Your task to perform on an android device: Open calendar and show me the first week of next month Image 0: 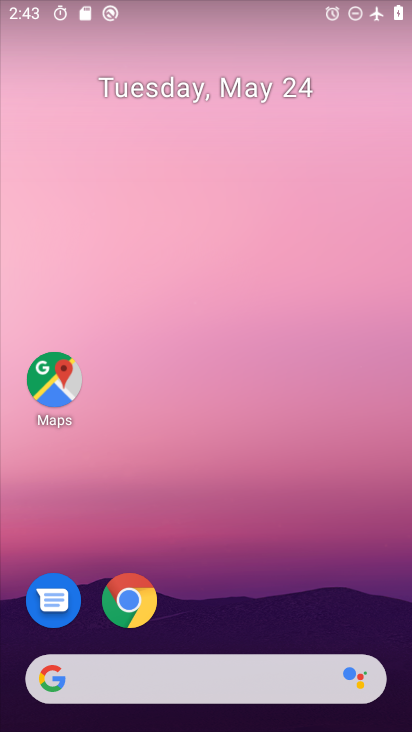
Step 0: drag from (240, 590) to (273, 117)
Your task to perform on an android device: Open calendar and show me the first week of next month Image 1: 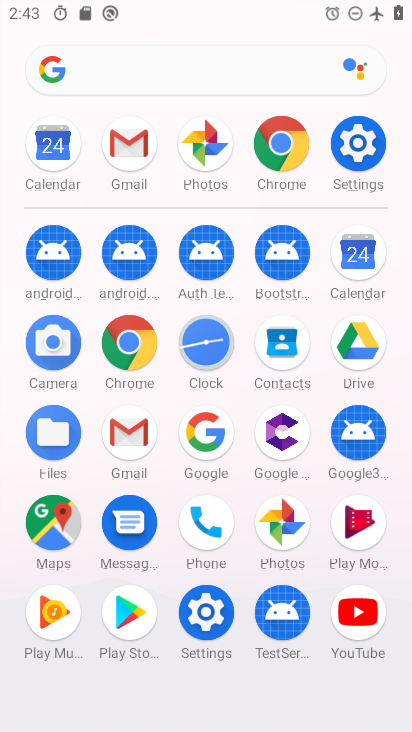
Step 1: click (350, 252)
Your task to perform on an android device: Open calendar and show me the first week of next month Image 2: 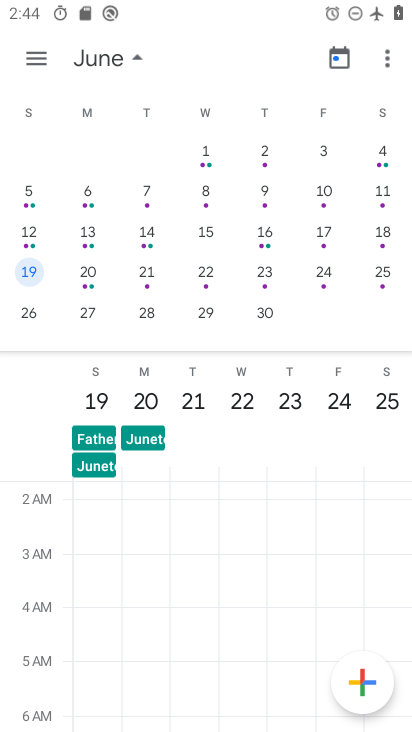
Step 2: click (118, 59)
Your task to perform on an android device: Open calendar and show me the first week of next month Image 3: 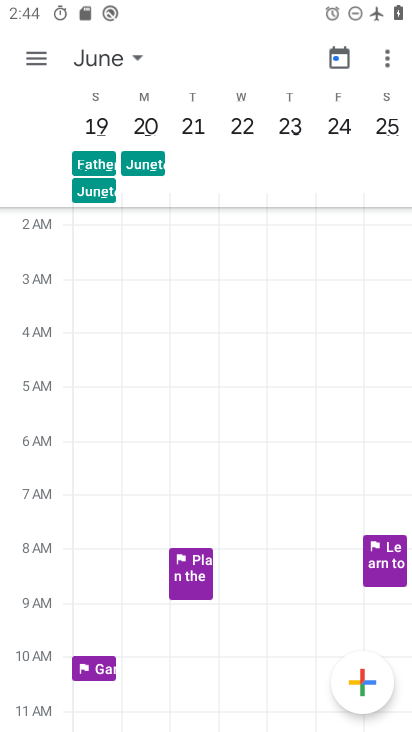
Step 3: click (90, 50)
Your task to perform on an android device: Open calendar and show me the first week of next month Image 4: 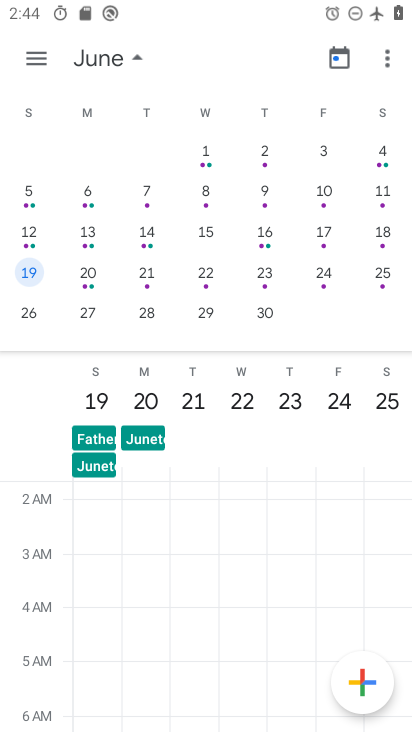
Step 4: drag from (67, 260) to (121, 281)
Your task to perform on an android device: Open calendar and show me the first week of next month Image 5: 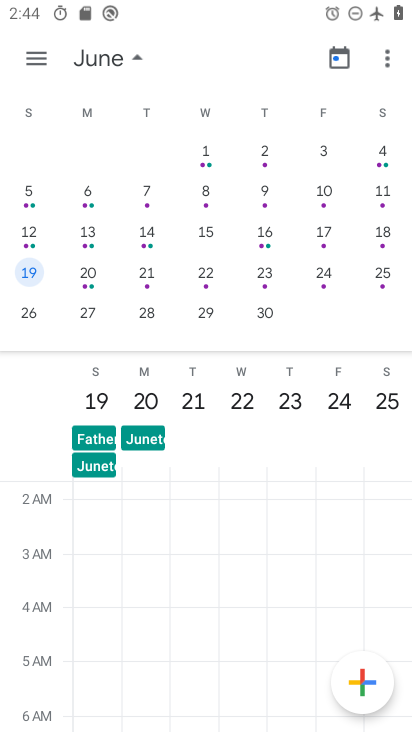
Step 5: click (26, 201)
Your task to perform on an android device: Open calendar and show me the first week of next month Image 6: 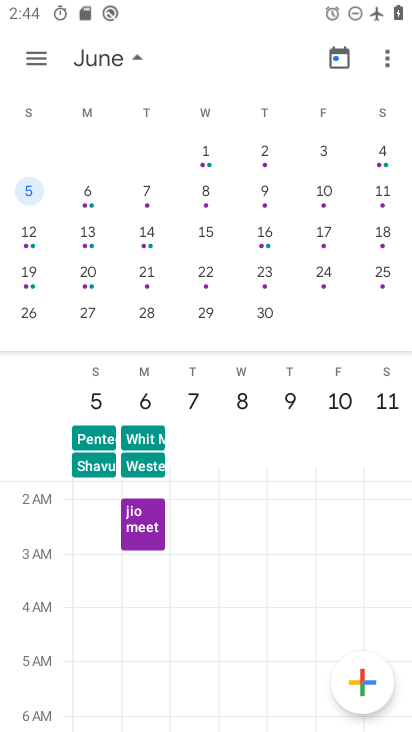
Step 6: task complete